Your task to perform on an android device: Open network settings Image 0: 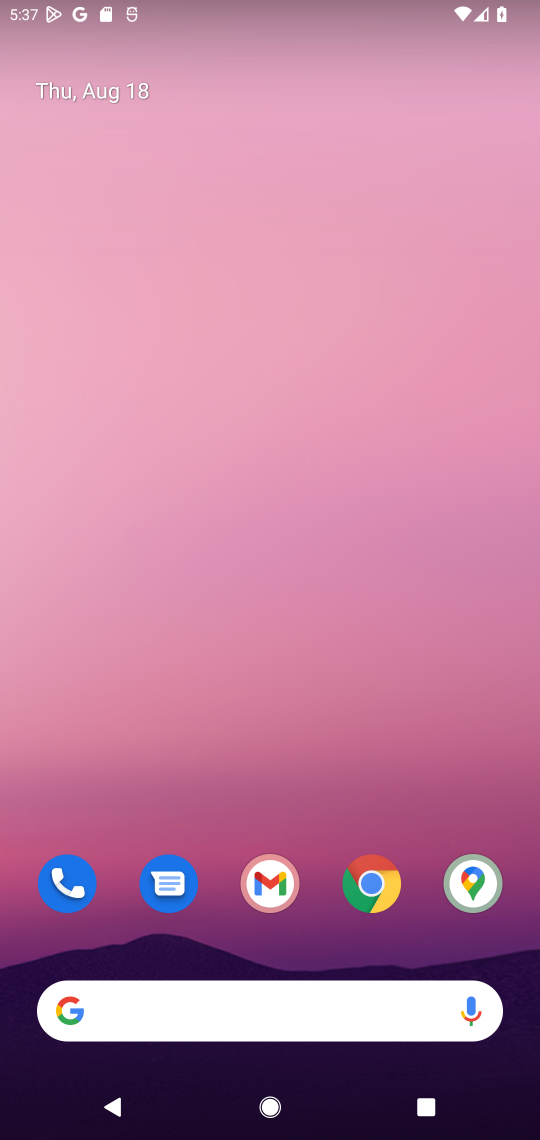
Step 0: drag from (309, 936) to (406, 100)
Your task to perform on an android device: Open network settings Image 1: 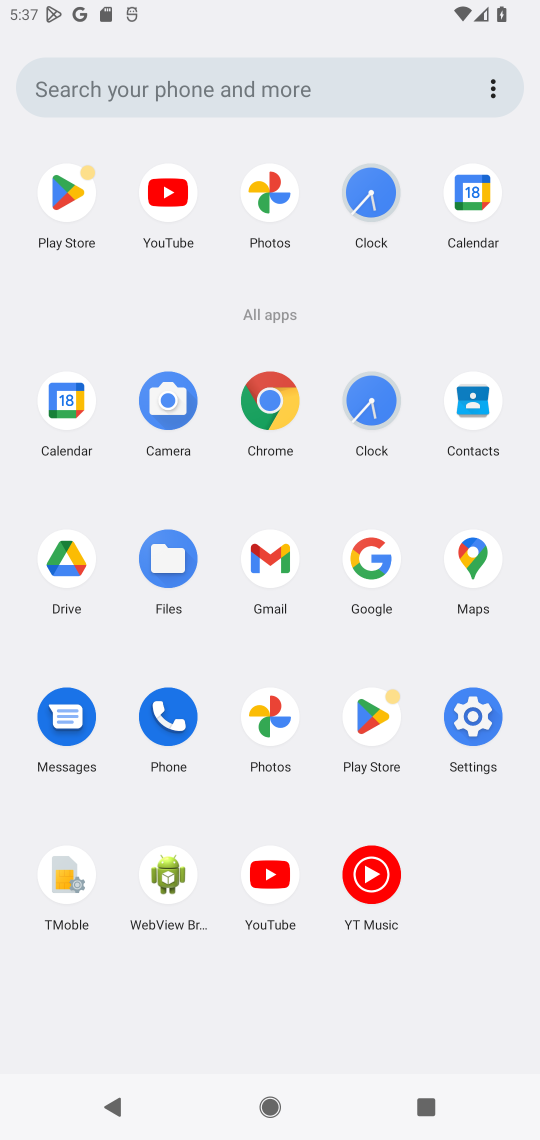
Step 1: click (469, 716)
Your task to perform on an android device: Open network settings Image 2: 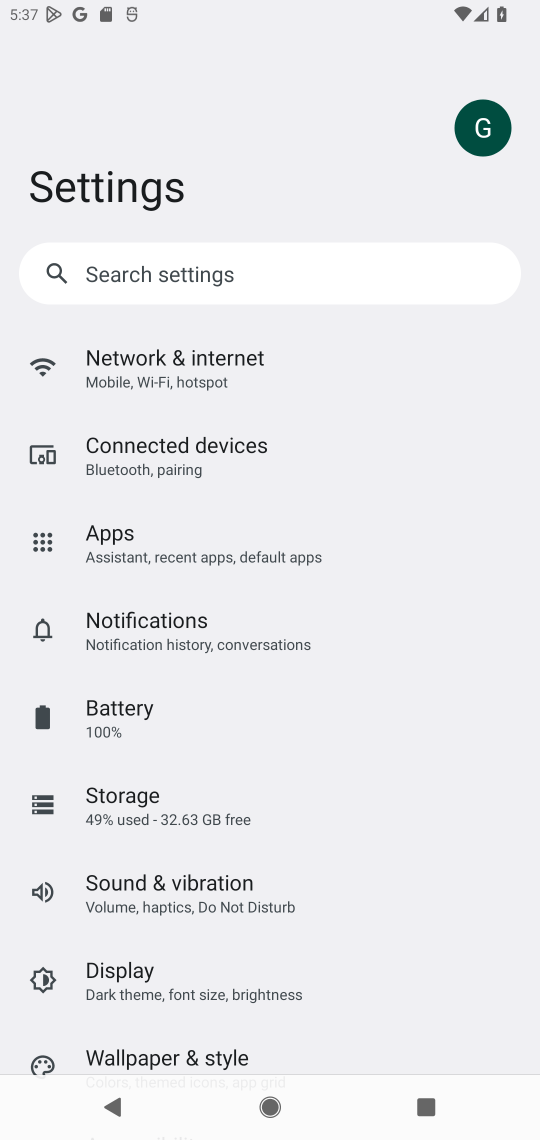
Step 2: click (179, 370)
Your task to perform on an android device: Open network settings Image 3: 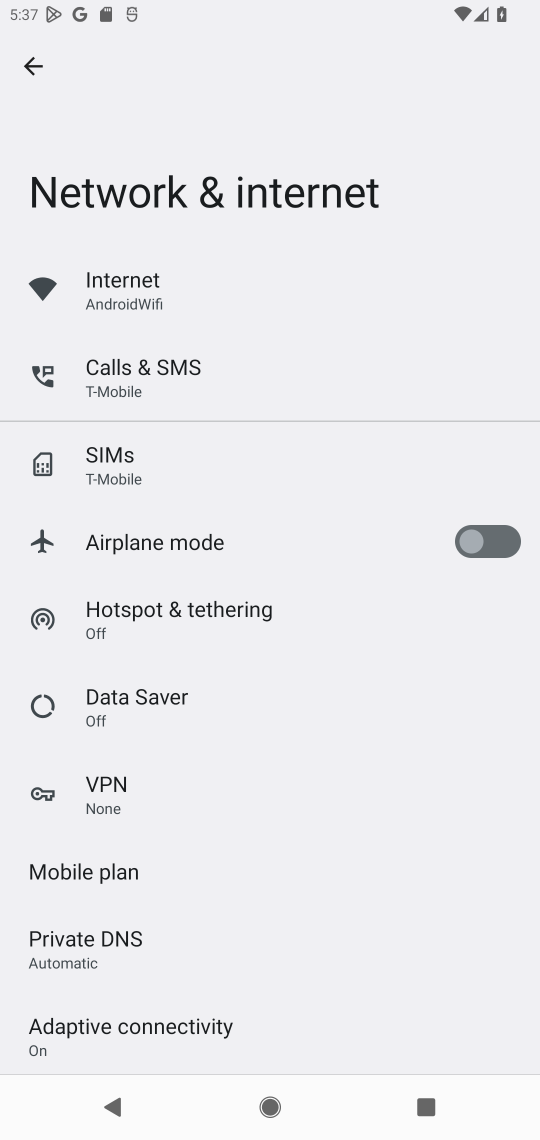
Step 3: task complete